Your task to perform on an android device: toggle location history Image 0: 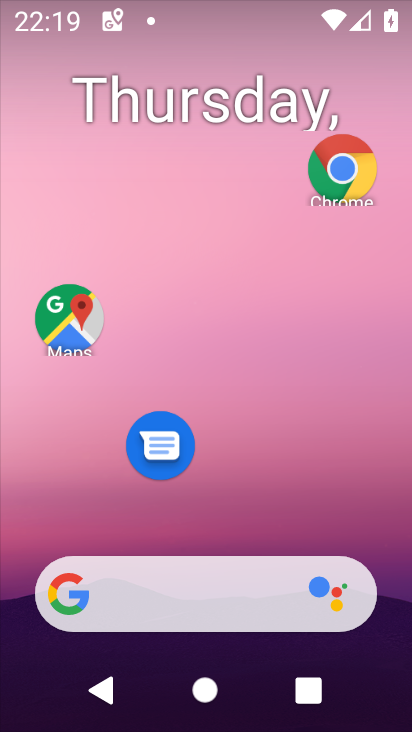
Step 0: drag from (215, 462) to (236, 149)
Your task to perform on an android device: toggle location history Image 1: 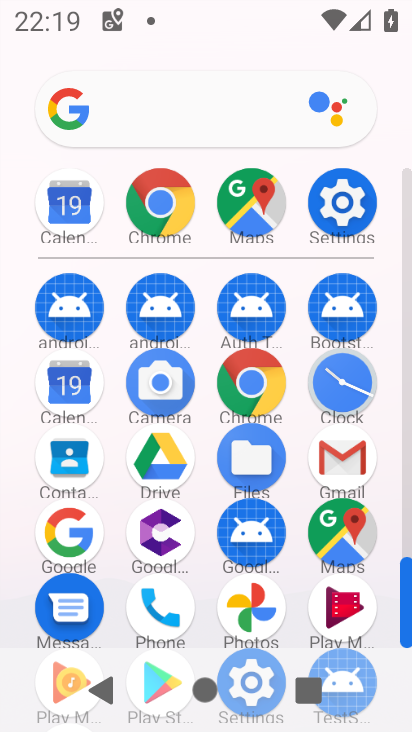
Step 1: click (322, 184)
Your task to perform on an android device: toggle location history Image 2: 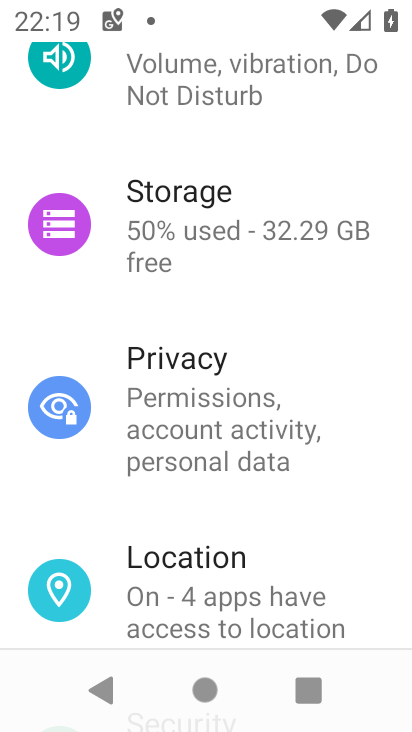
Step 2: drag from (219, 564) to (291, 131)
Your task to perform on an android device: toggle location history Image 3: 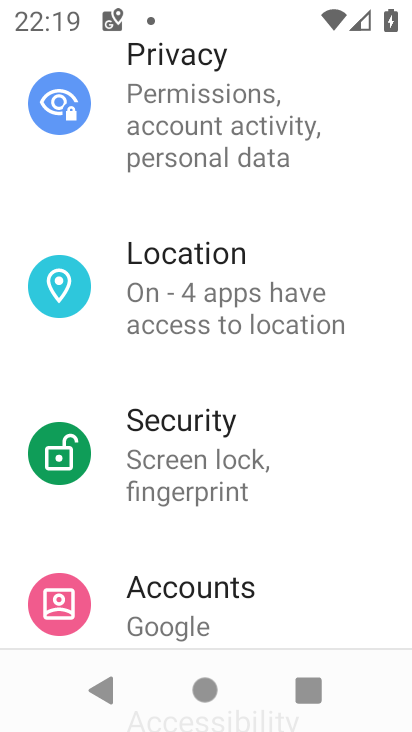
Step 3: click (169, 271)
Your task to perform on an android device: toggle location history Image 4: 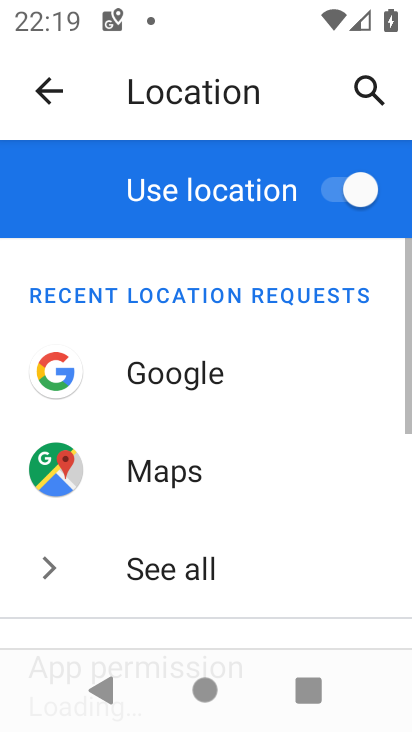
Step 4: drag from (255, 524) to (335, 162)
Your task to perform on an android device: toggle location history Image 5: 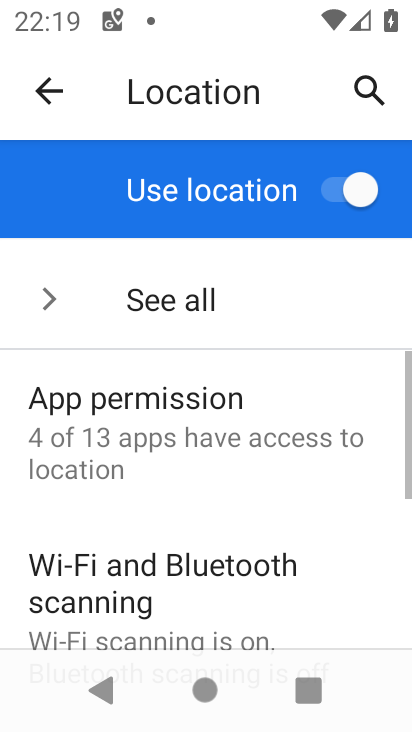
Step 5: drag from (192, 643) to (258, 246)
Your task to perform on an android device: toggle location history Image 6: 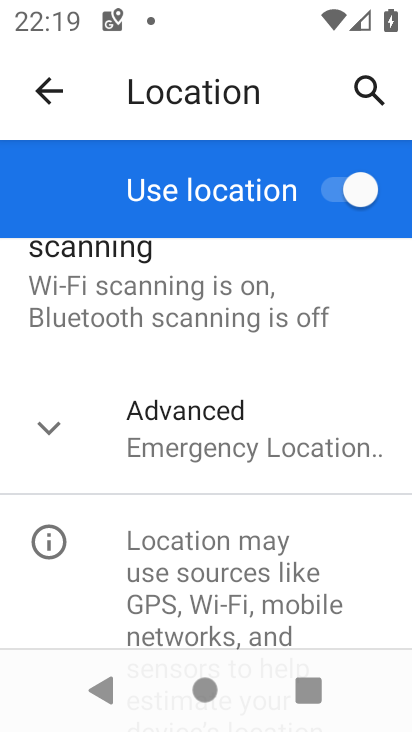
Step 6: click (152, 450)
Your task to perform on an android device: toggle location history Image 7: 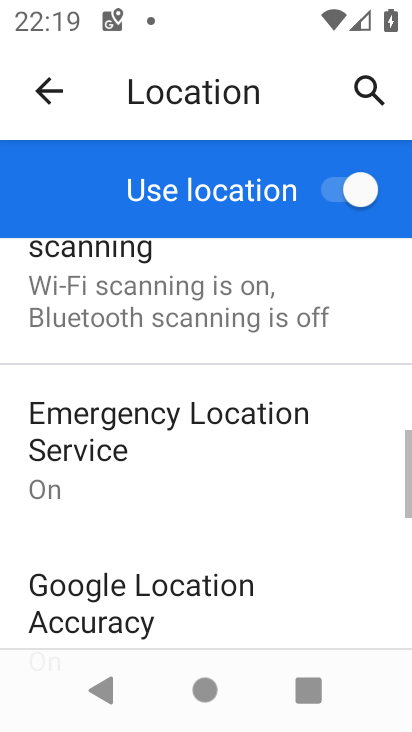
Step 7: drag from (249, 608) to (329, 287)
Your task to perform on an android device: toggle location history Image 8: 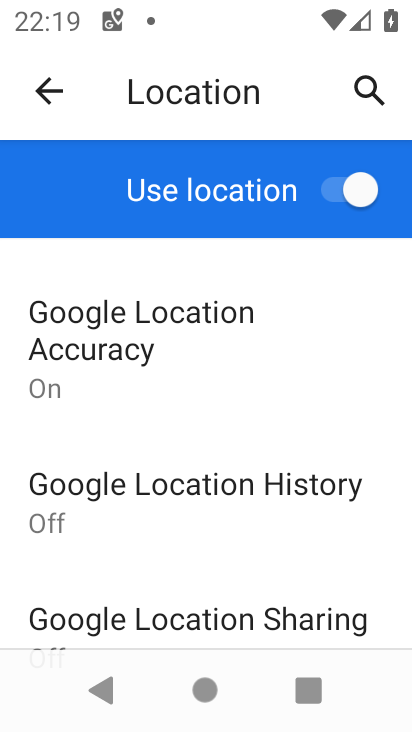
Step 8: click (165, 502)
Your task to perform on an android device: toggle location history Image 9: 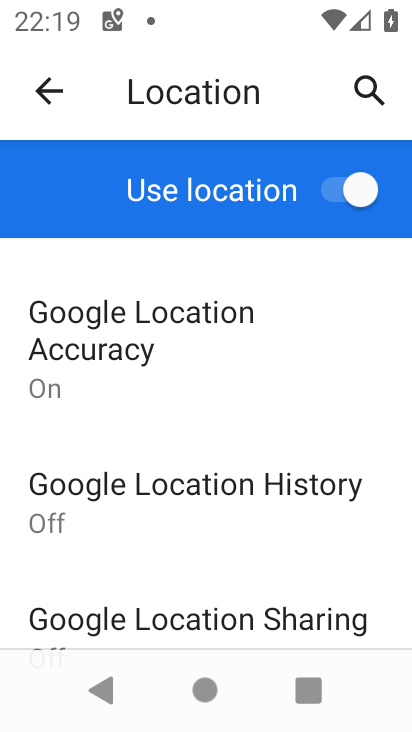
Step 9: click (165, 502)
Your task to perform on an android device: toggle location history Image 10: 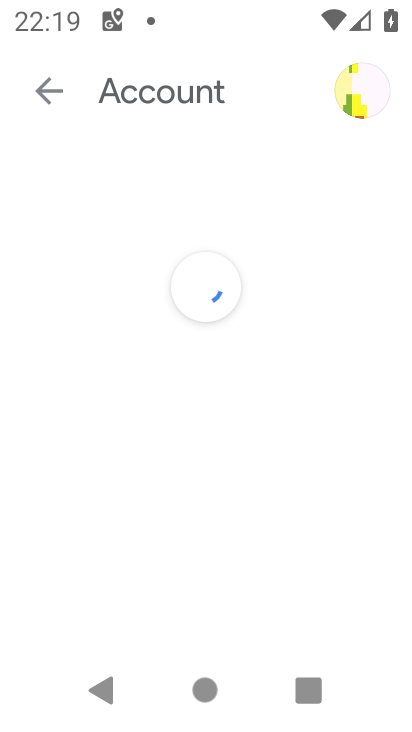
Step 10: drag from (238, 511) to (401, 42)
Your task to perform on an android device: toggle location history Image 11: 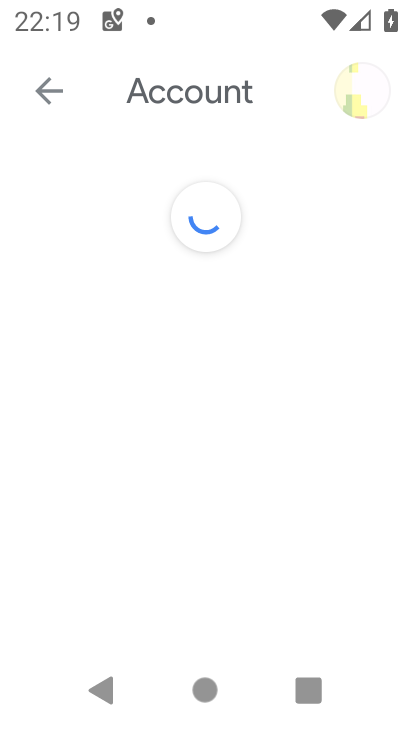
Step 11: drag from (185, 608) to (280, 151)
Your task to perform on an android device: toggle location history Image 12: 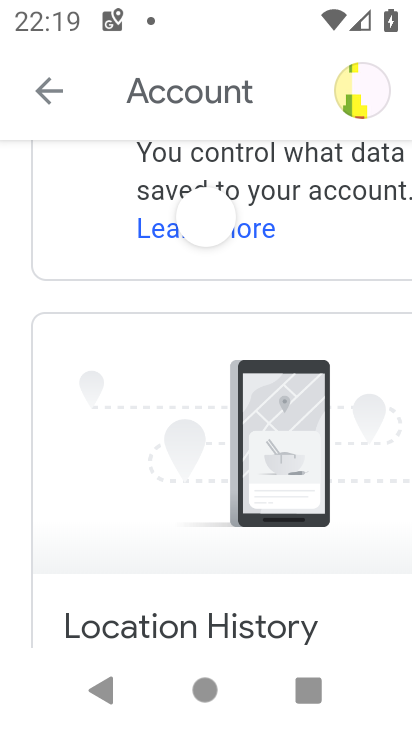
Step 12: drag from (254, 616) to (242, 108)
Your task to perform on an android device: toggle location history Image 13: 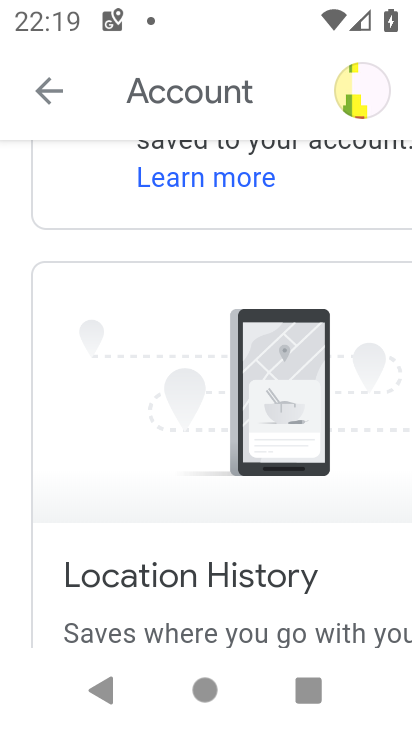
Step 13: drag from (235, 445) to (270, 118)
Your task to perform on an android device: toggle location history Image 14: 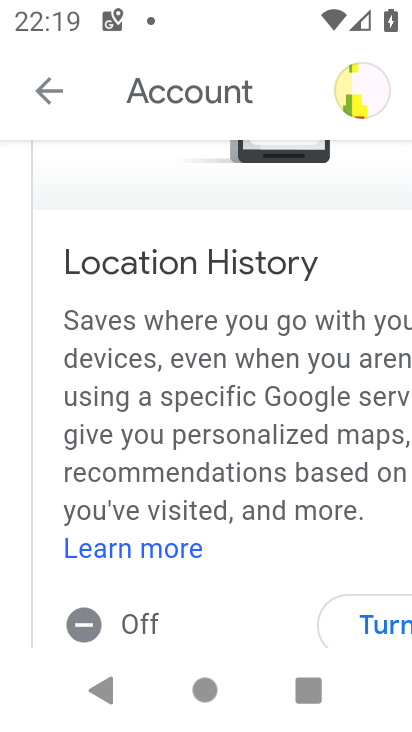
Step 14: click (376, 622)
Your task to perform on an android device: toggle location history Image 15: 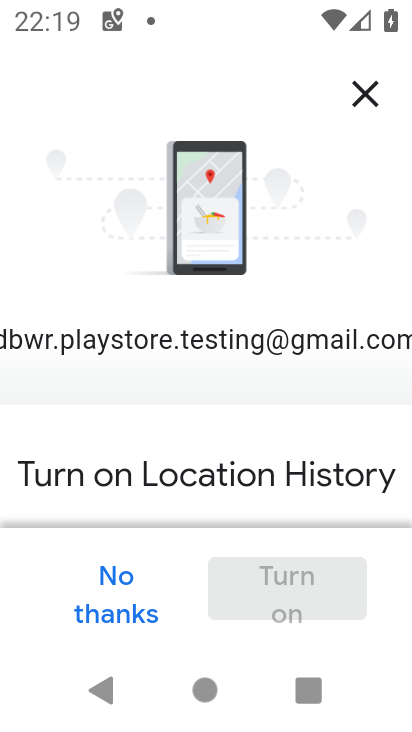
Step 15: drag from (221, 477) to (321, 25)
Your task to perform on an android device: toggle location history Image 16: 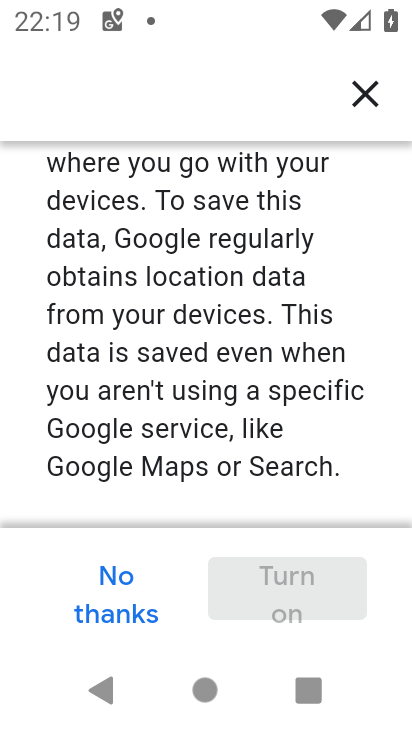
Step 16: drag from (211, 463) to (268, 117)
Your task to perform on an android device: toggle location history Image 17: 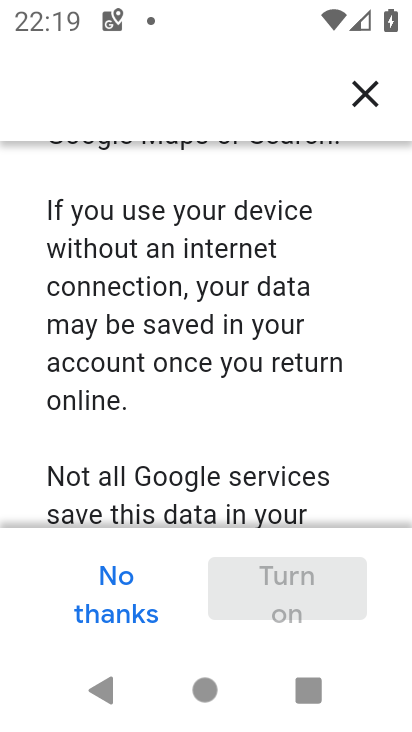
Step 17: drag from (170, 497) to (211, 184)
Your task to perform on an android device: toggle location history Image 18: 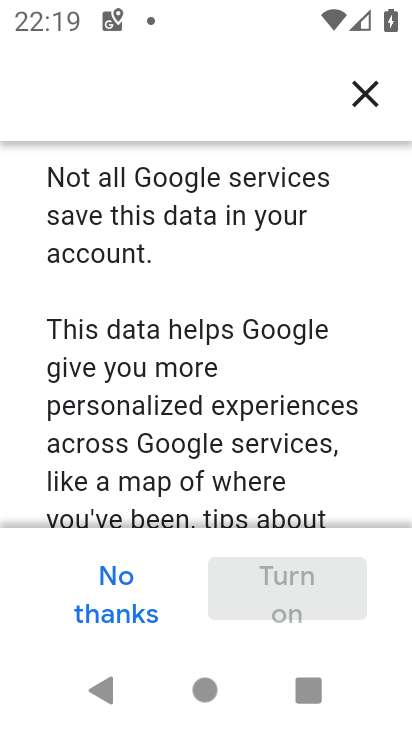
Step 18: drag from (202, 503) to (209, 2)
Your task to perform on an android device: toggle location history Image 19: 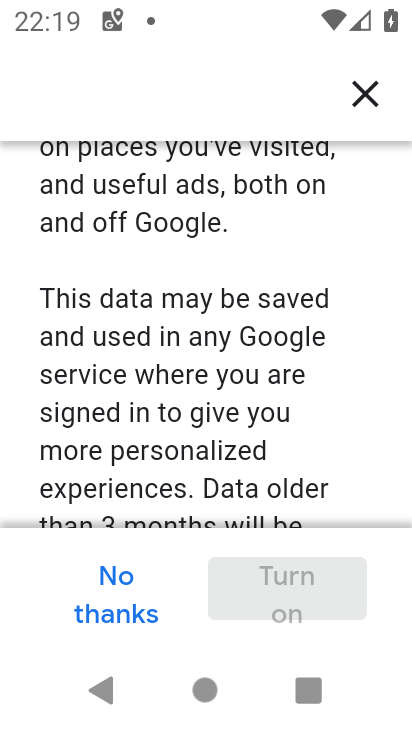
Step 19: drag from (143, 491) to (231, 119)
Your task to perform on an android device: toggle location history Image 20: 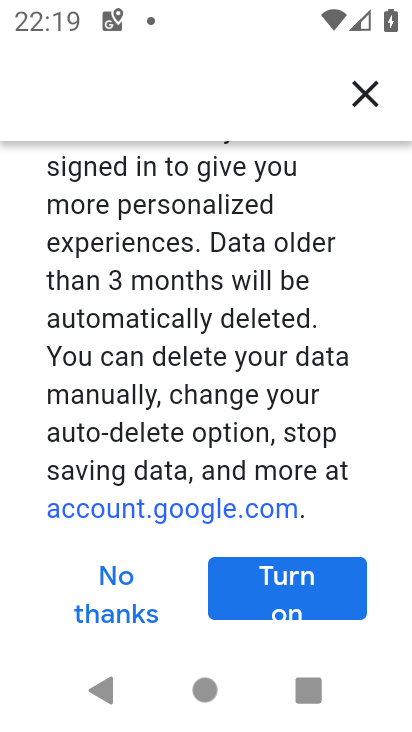
Step 20: click (243, 591)
Your task to perform on an android device: toggle location history Image 21: 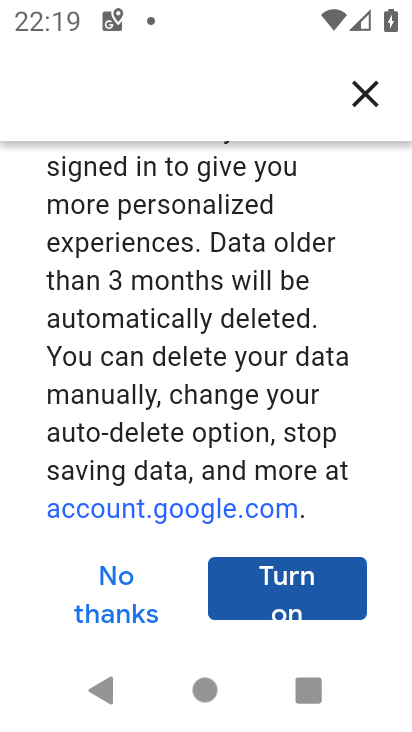
Step 21: task complete